Your task to perform on an android device: Open Android settings Image 0: 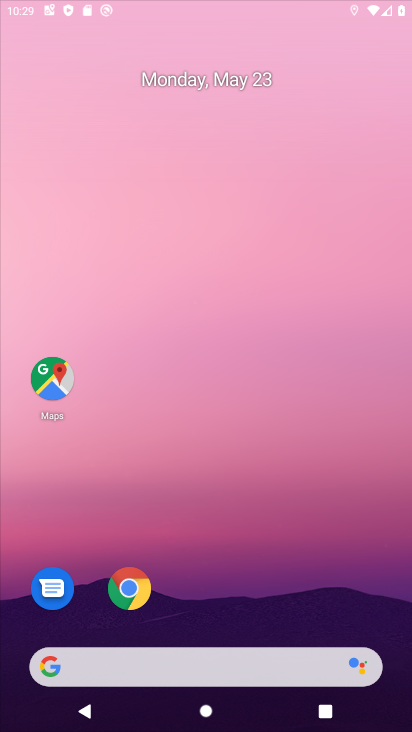
Step 0: click (245, 114)
Your task to perform on an android device: Open Android settings Image 1: 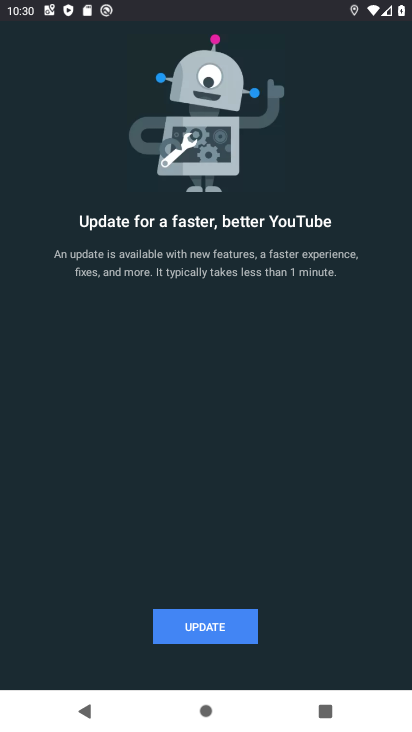
Step 1: press home button
Your task to perform on an android device: Open Android settings Image 2: 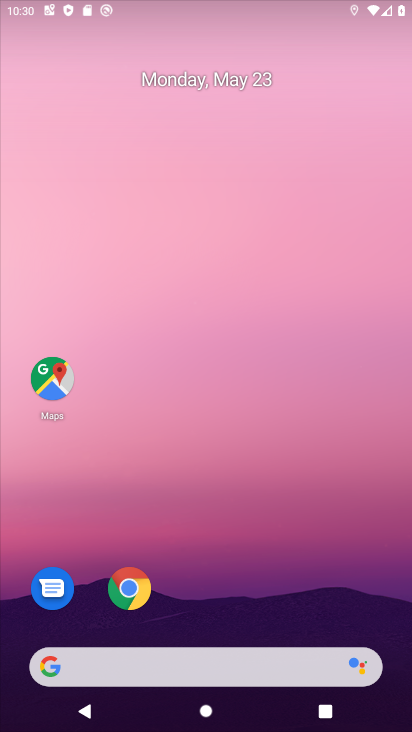
Step 2: drag from (249, 555) to (283, 121)
Your task to perform on an android device: Open Android settings Image 3: 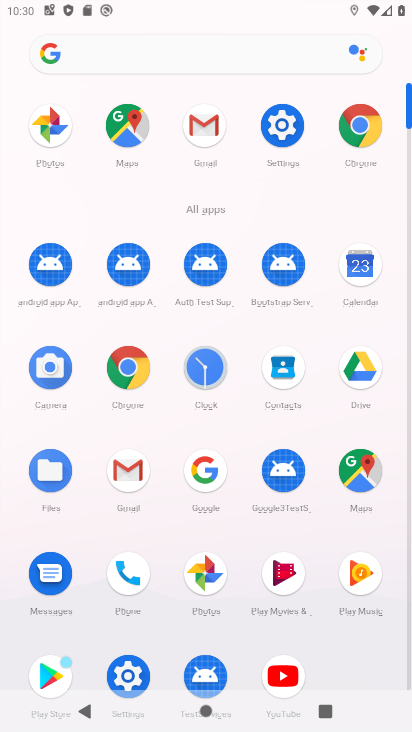
Step 3: click (281, 122)
Your task to perform on an android device: Open Android settings Image 4: 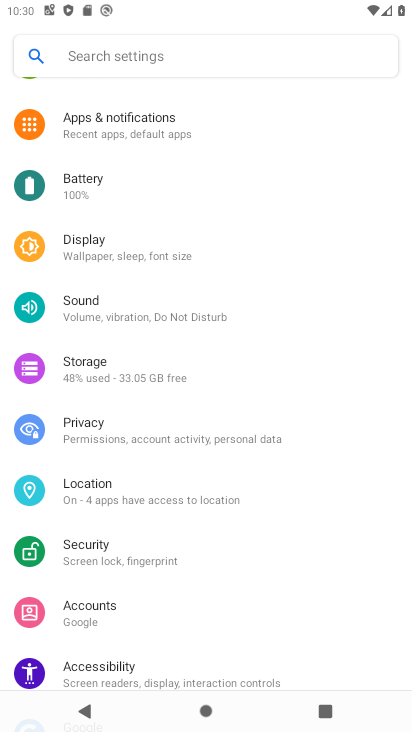
Step 4: task complete